Your task to perform on an android device: See recent photos Image 0: 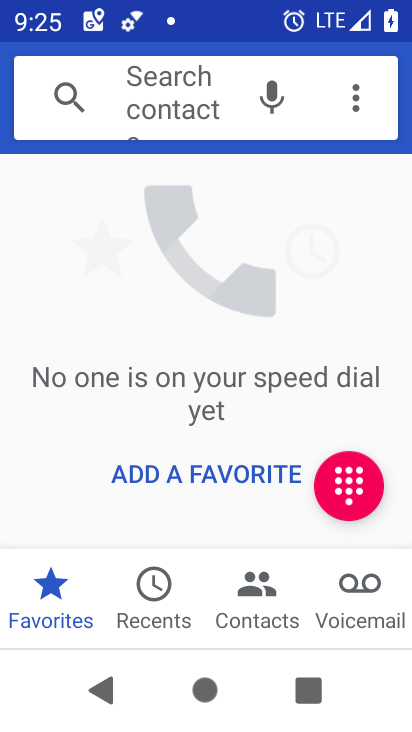
Step 0: press home button
Your task to perform on an android device: See recent photos Image 1: 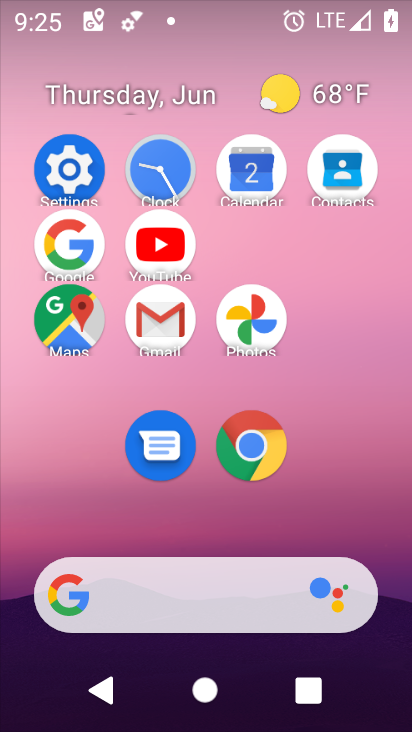
Step 1: click (225, 322)
Your task to perform on an android device: See recent photos Image 2: 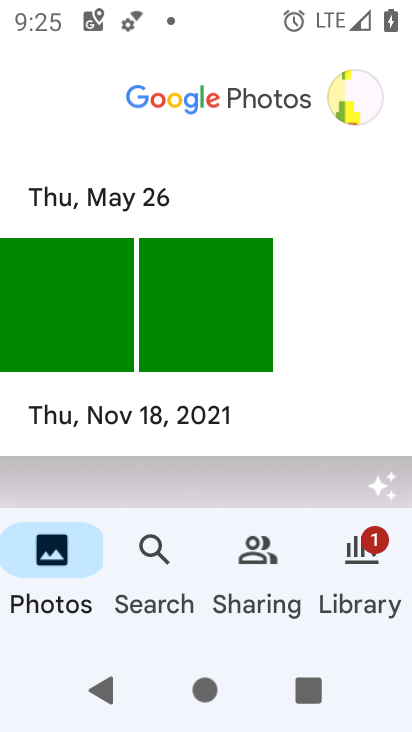
Step 2: task complete